Your task to perform on an android device: Go to eBay Image 0: 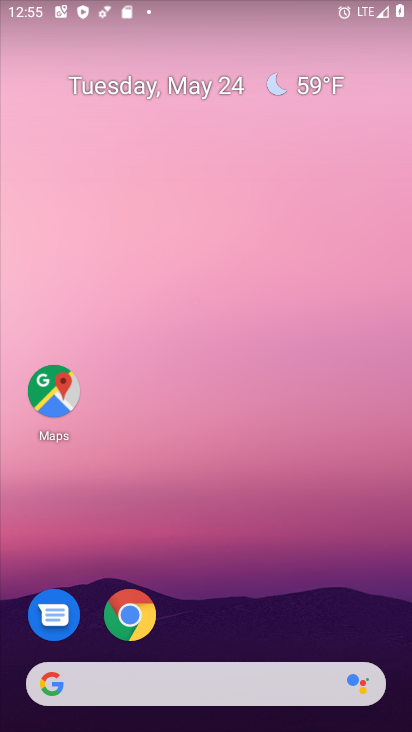
Step 0: drag from (236, 502) to (220, 33)
Your task to perform on an android device: Go to eBay Image 1: 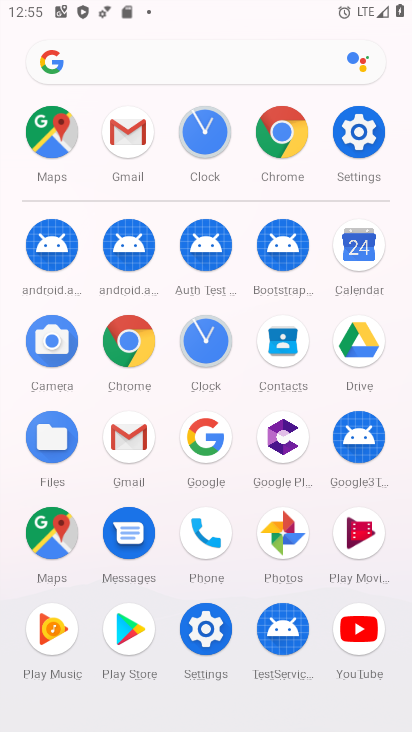
Step 1: drag from (4, 557) to (10, 202)
Your task to perform on an android device: Go to eBay Image 2: 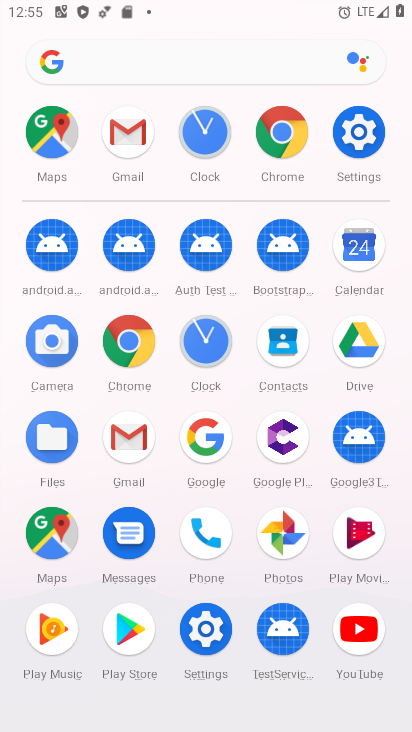
Step 2: click (129, 340)
Your task to perform on an android device: Go to eBay Image 3: 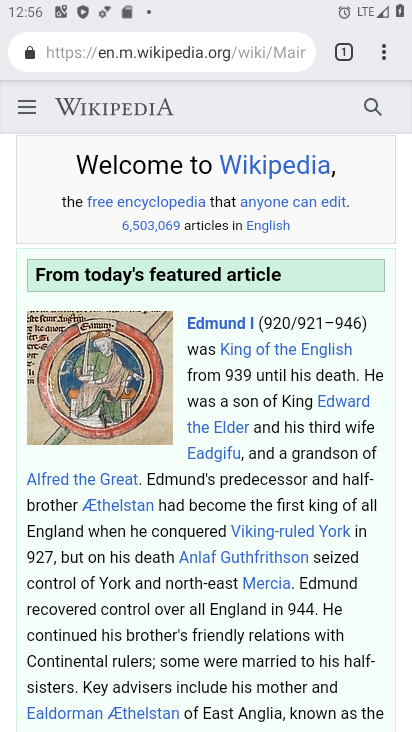
Step 3: click (186, 48)
Your task to perform on an android device: Go to eBay Image 4: 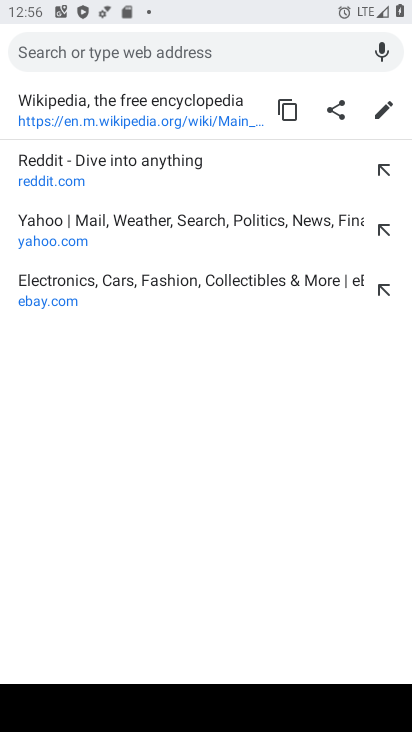
Step 4: type "eBay"
Your task to perform on an android device: Go to eBay Image 5: 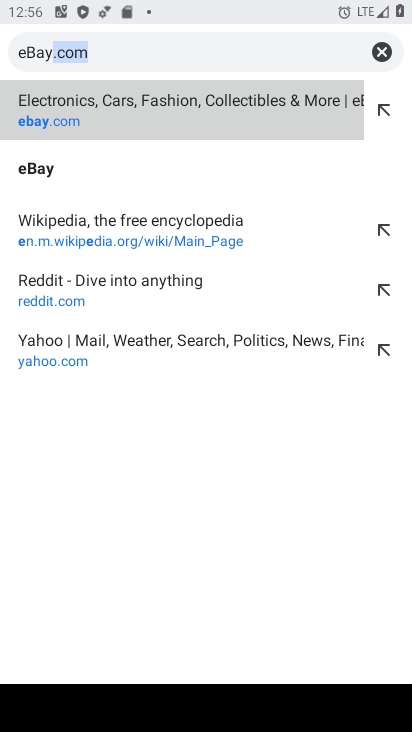
Step 5: type ""
Your task to perform on an android device: Go to eBay Image 6: 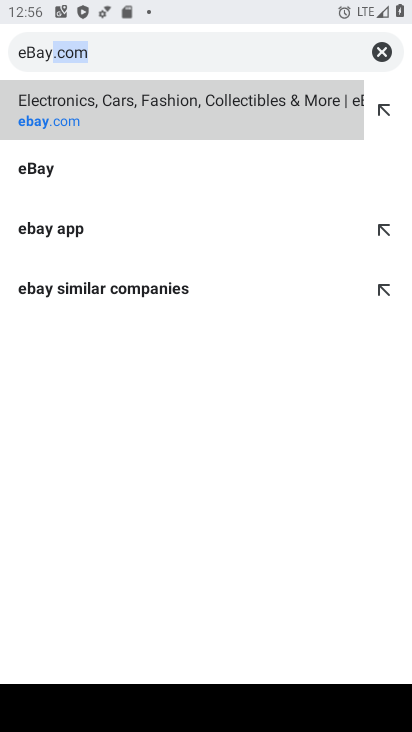
Step 6: click (104, 118)
Your task to perform on an android device: Go to eBay Image 7: 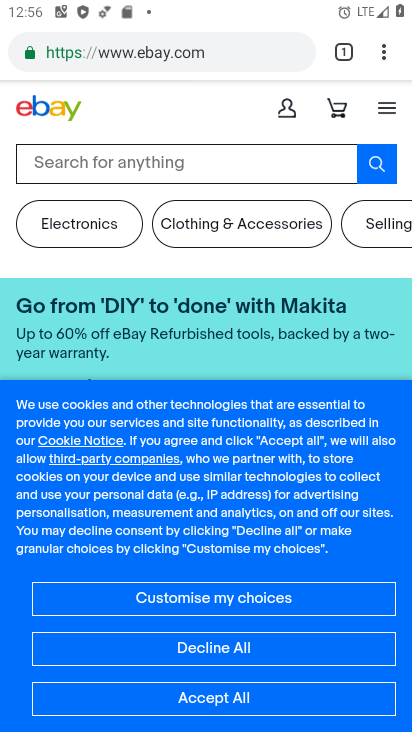
Step 7: task complete